Your task to perform on an android device: create a new album in the google photos Image 0: 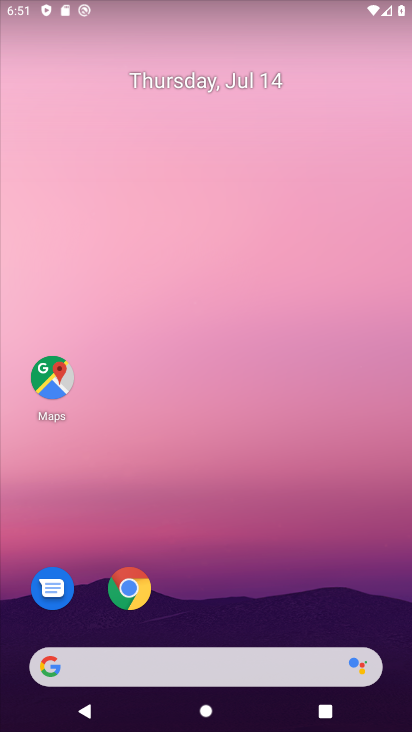
Step 0: drag from (360, 627) to (234, 50)
Your task to perform on an android device: create a new album in the google photos Image 1: 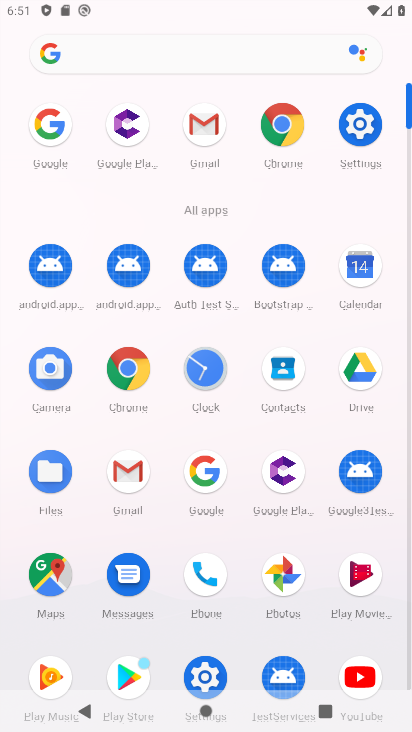
Step 1: click (269, 576)
Your task to perform on an android device: create a new album in the google photos Image 2: 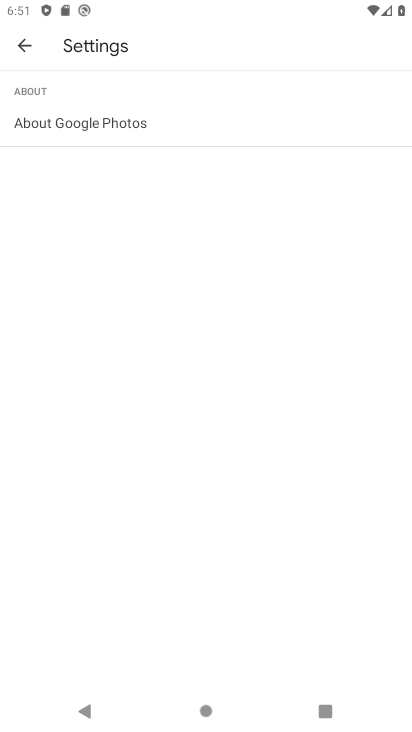
Step 2: press back button
Your task to perform on an android device: create a new album in the google photos Image 3: 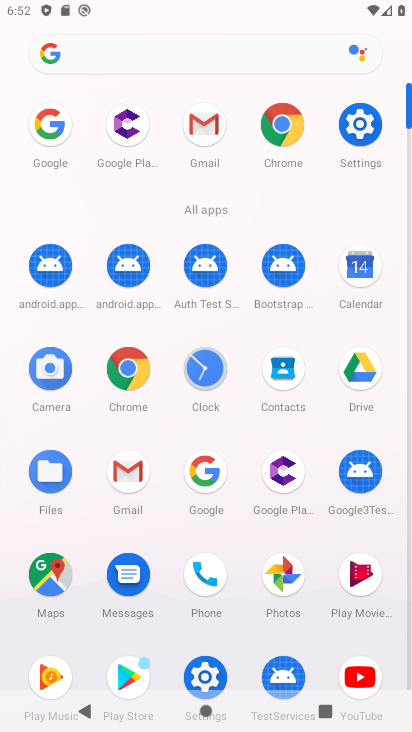
Step 3: click (280, 558)
Your task to perform on an android device: create a new album in the google photos Image 4: 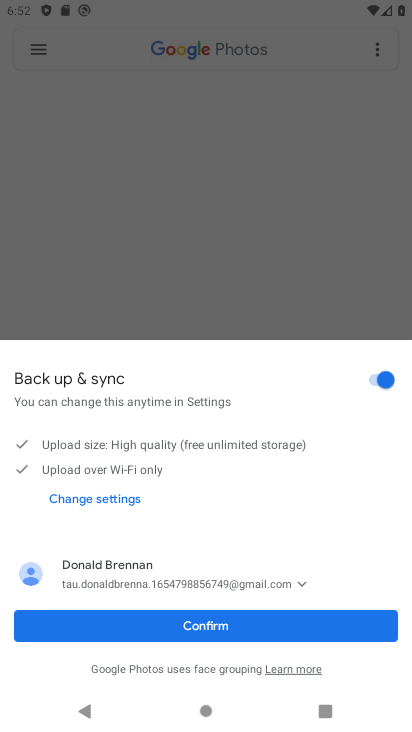
Step 4: click (238, 624)
Your task to perform on an android device: create a new album in the google photos Image 5: 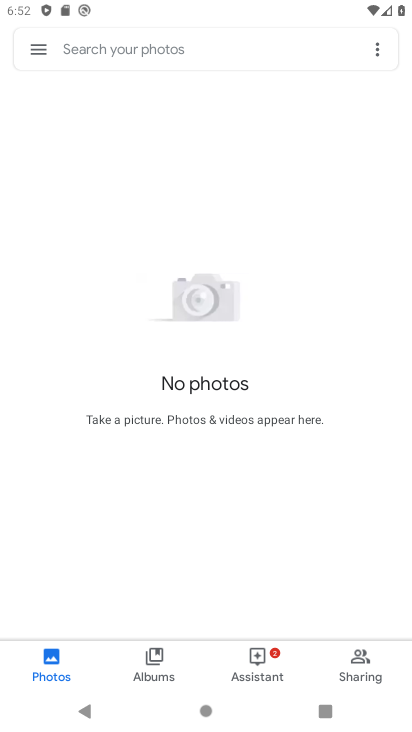
Step 5: task complete